Your task to perform on an android device: Go to location settings Image 0: 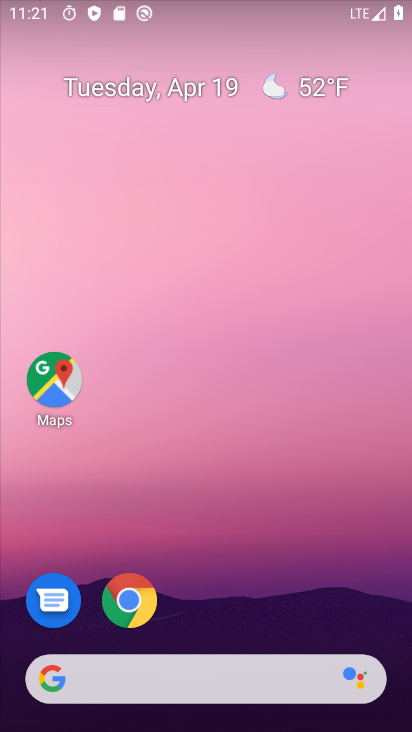
Step 0: drag from (198, 634) to (136, 1)
Your task to perform on an android device: Go to location settings Image 1: 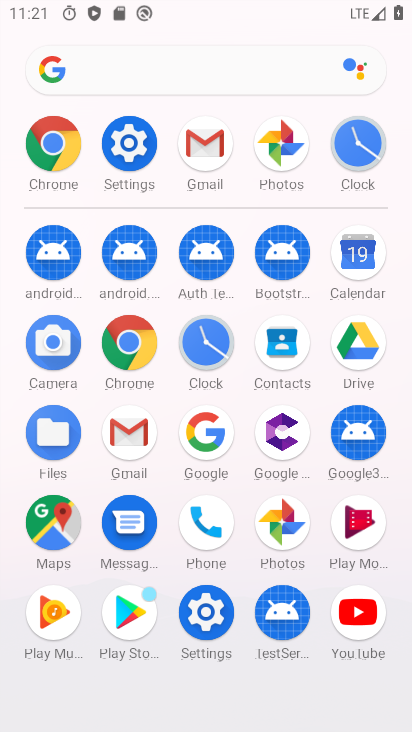
Step 1: click (134, 140)
Your task to perform on an android device: Go to location settings Image 2: 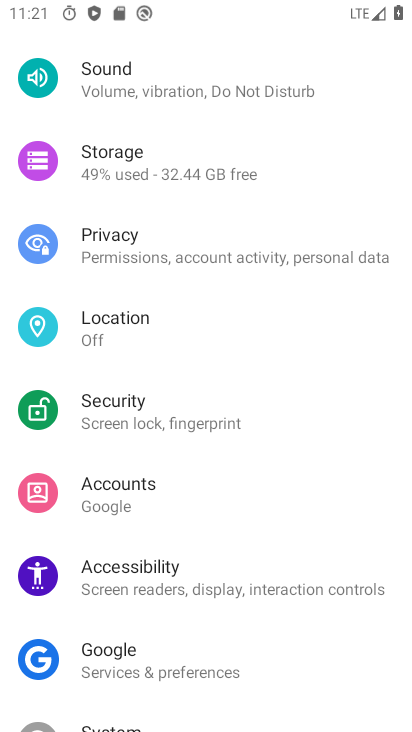
Step 2: click (121, 333)
Your task to perform on an android device: Go to location settings Image 3: 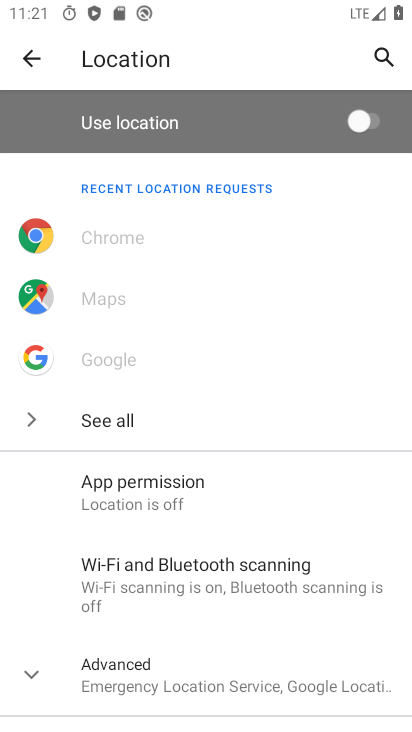
Step 3: drag from (260, 564) to (214, 123)
Your task to perform on an android device: Go to location settings Image 4: 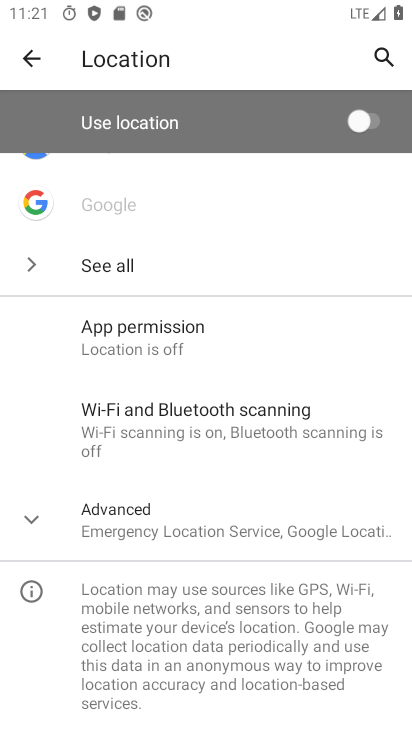
Step 4: click (162, 533)
Your task to perform on an android device: Go to location settings Image 5: 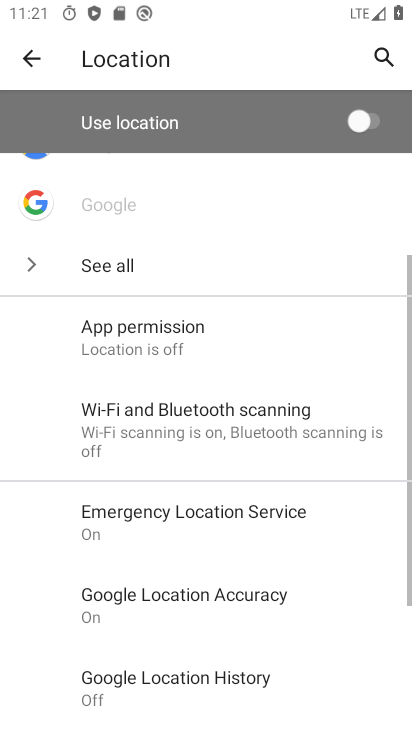
Step 5: task complete